Your task to perform on an android device: Open my contact list Image 0: 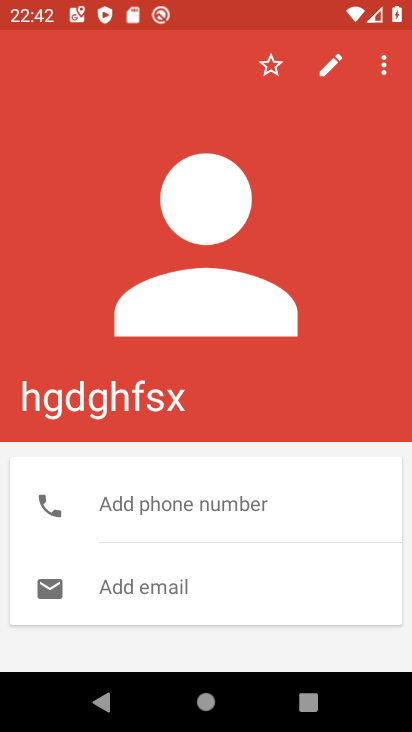
Step 0: press home button
Your task to perform on an android device: Open my contact list Image 1: 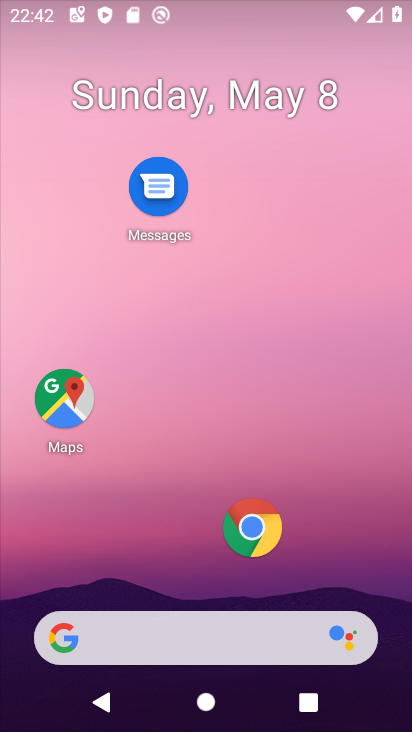
Step 1: drag from (167, 545) to (189, 86)
Your task to perform on an android device: Open my contact list Image 2: 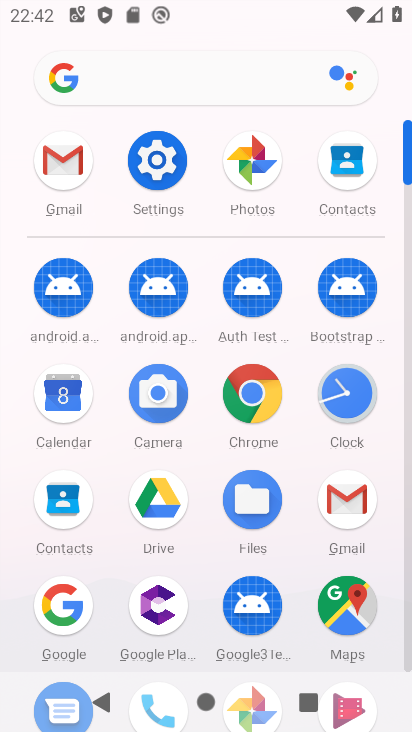
Step 2: click (67, 503)
Your task to perform on an android device: Open my contact list Image 3: 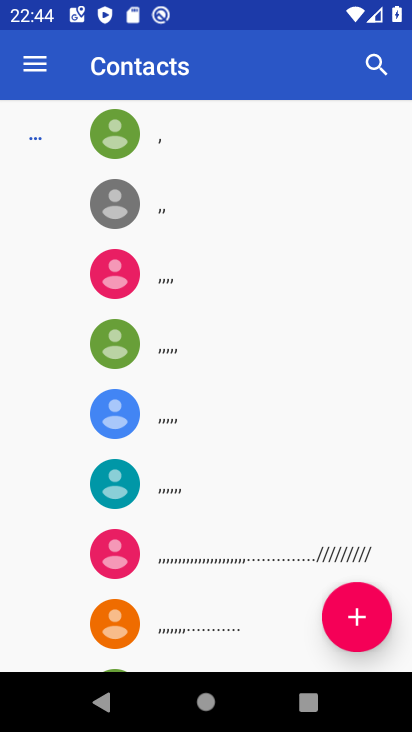
Step 3: task complete